Your task to perform on an android device: Go to internet settings Image 0: 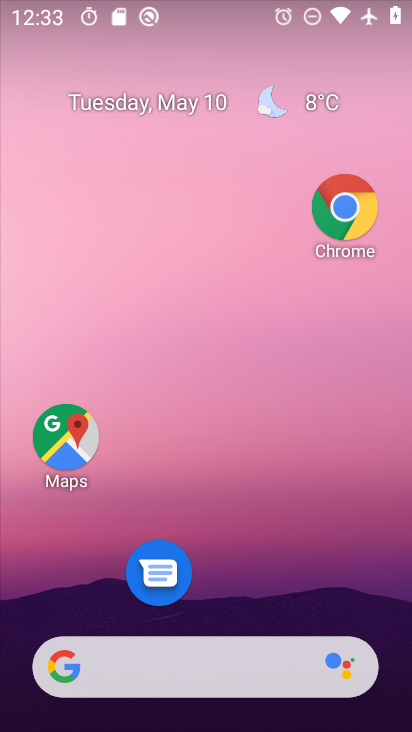
Step 0: drag from (314, 590) to (272, 109)
Your task to perform on an android device: Go to internet settings Image 1: 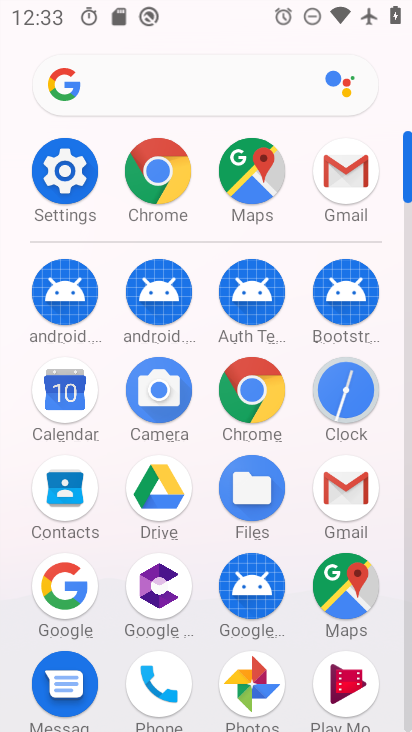
Step 1: click (78, 182)
Your task to perform on an android device: Go to internet settings Image 2: 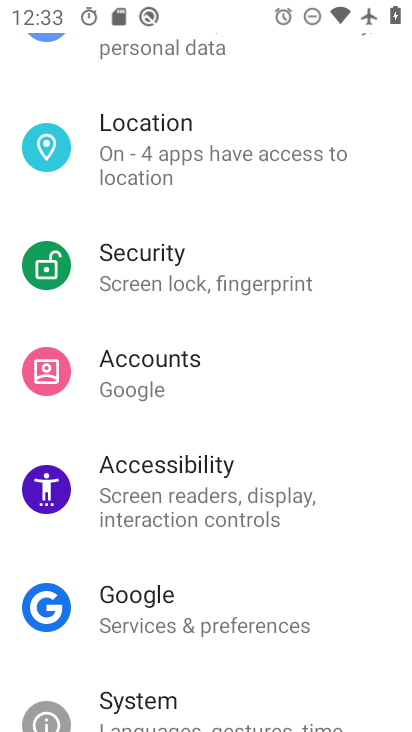
Step 2: drag from (251, 112) to (296, 605)
Your task to perform on an android device: Go to internet settings Image 3: 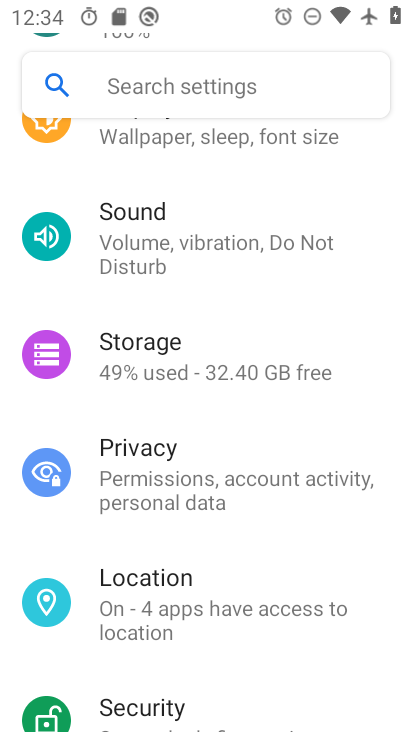
Step 3: drag from (232, 175) to (276, 640)
Your task to perform on an android device: Go to internet settings Image 4: 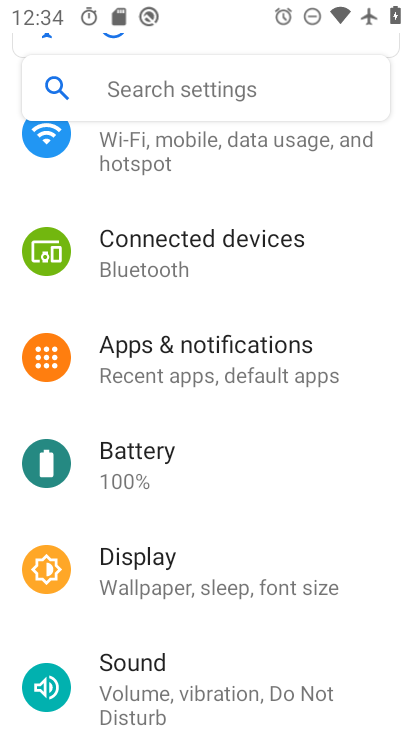
Step 4: drag from (234, 178) to (266, 518)
Your task to perform on an android device: Go to internet settings Image 5: 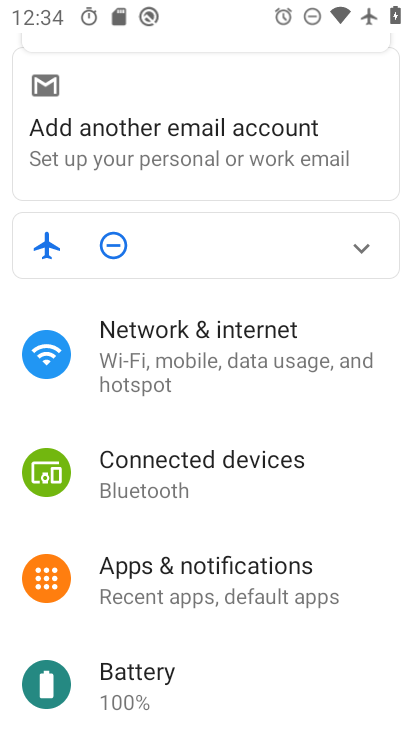
Step 5: click (237, 354)
Your task to perform on an android device: Go to internet settings Image 6: 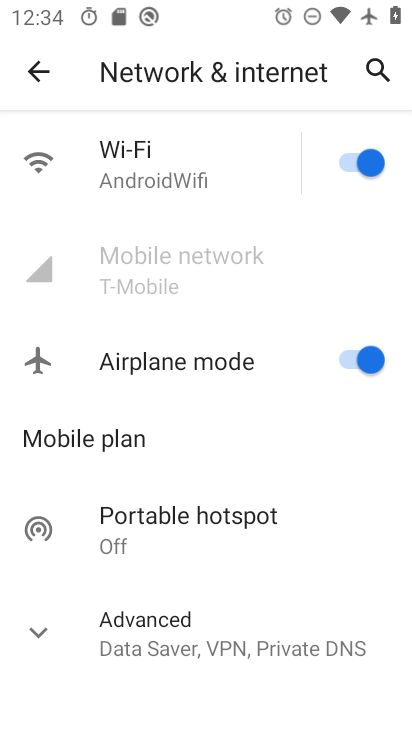
Step 6: task complete